Your task to perform on an android device: Search for "usb-b" on ebay, select the first entry, and add it to the cart. Image 0: 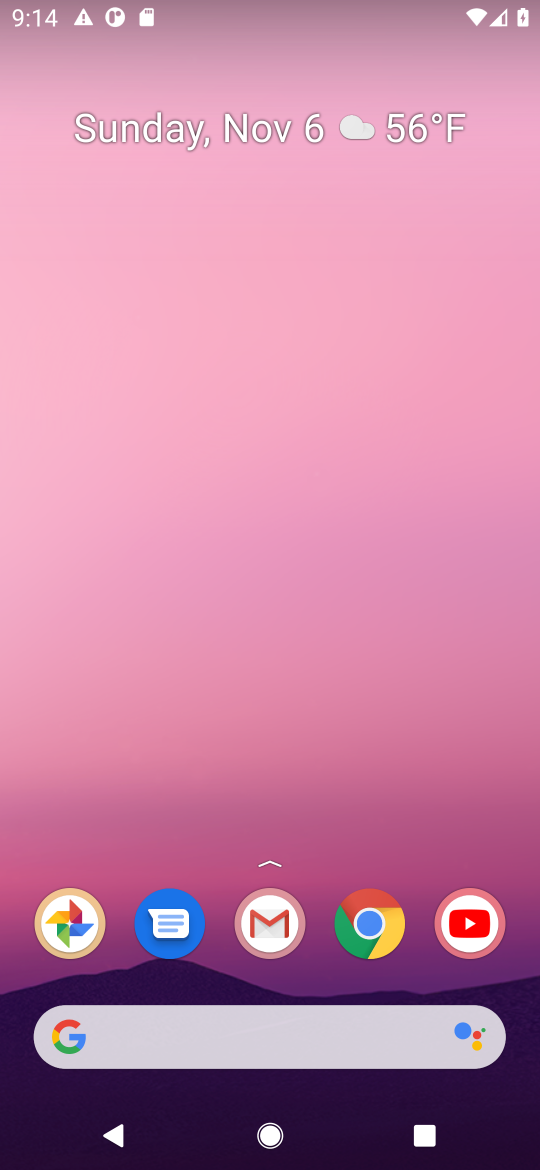
Step 0: click (366, 953)
Your task to perform on an android device: Search for "usb-b" on ebay, select the first entry, and add it to the cart. Image 1: 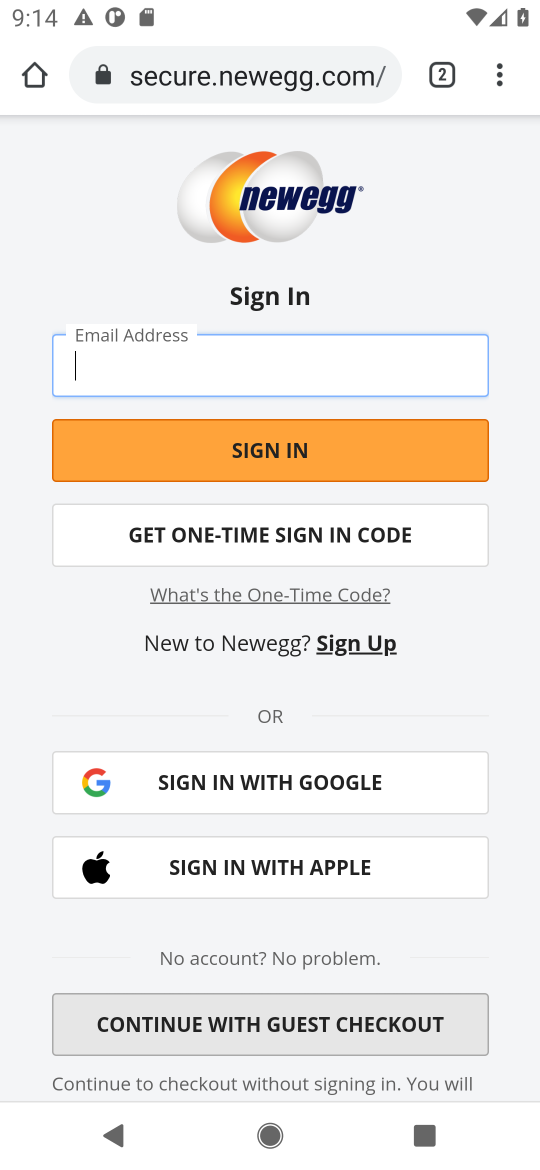
Step 1: click (203, 86)
Your task to perform on an android device: Search for "usb-b" on ebay, select the first entry, and add it to the cart. Image 2: 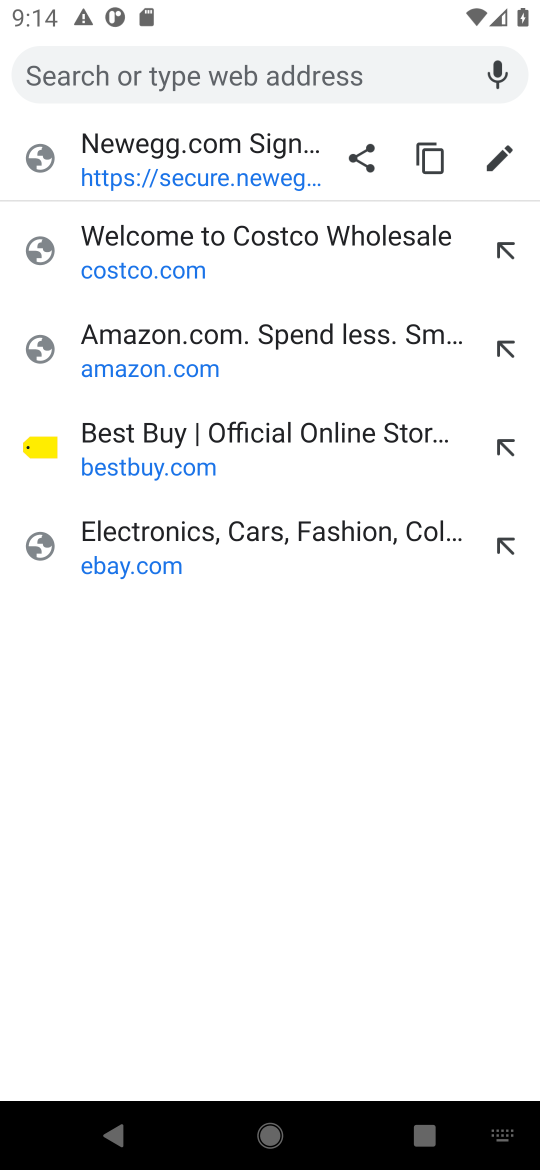
Step 2: click (131, 568)
Your task to perform on an android device: Search for "usb-b" on ebay, select the first entry, and add it to the cart. Image 3: 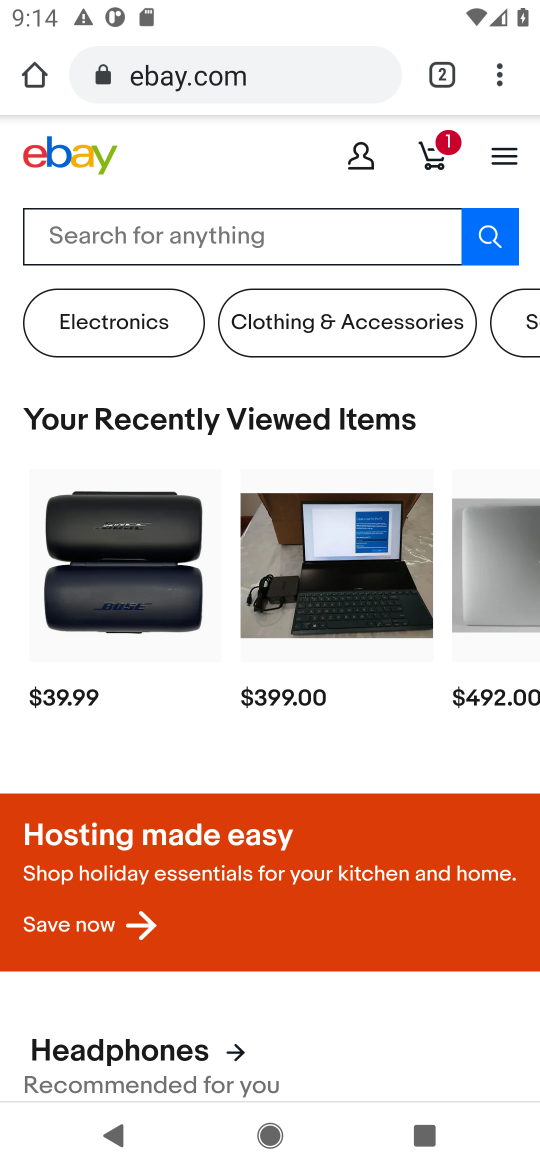
Step 3: click (167, 227)
Your task to perform on an android device: Search for "usb-b" on ebay, select the first entry, and add it to the cart. Image 4: 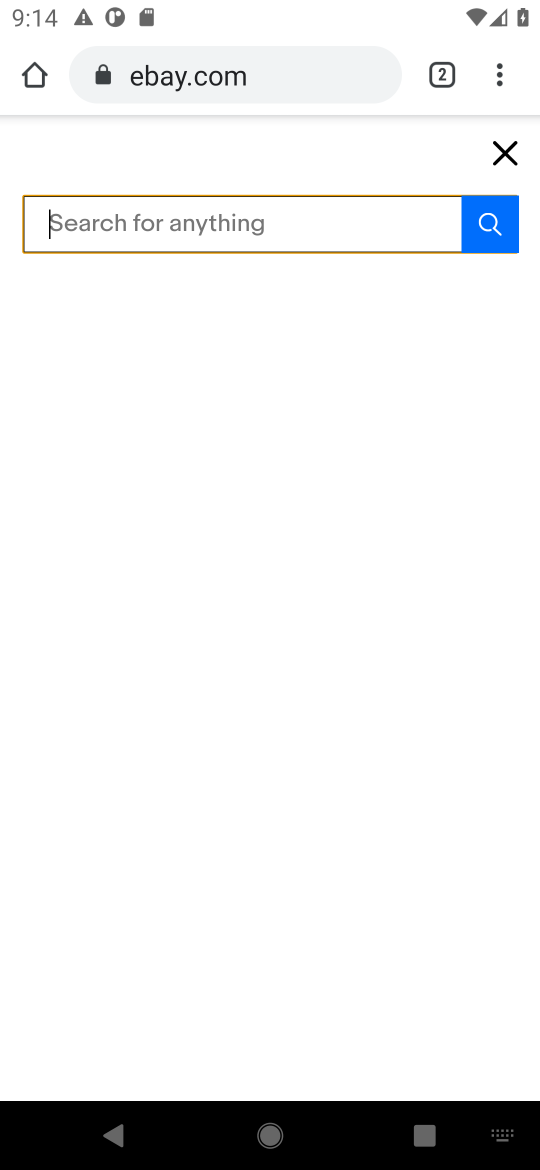
Step 4: type "usb-b"
Your task to perform on an android device: Search for "usb-b" on ebay, select the first entry, and add it to the cart. Image 5: 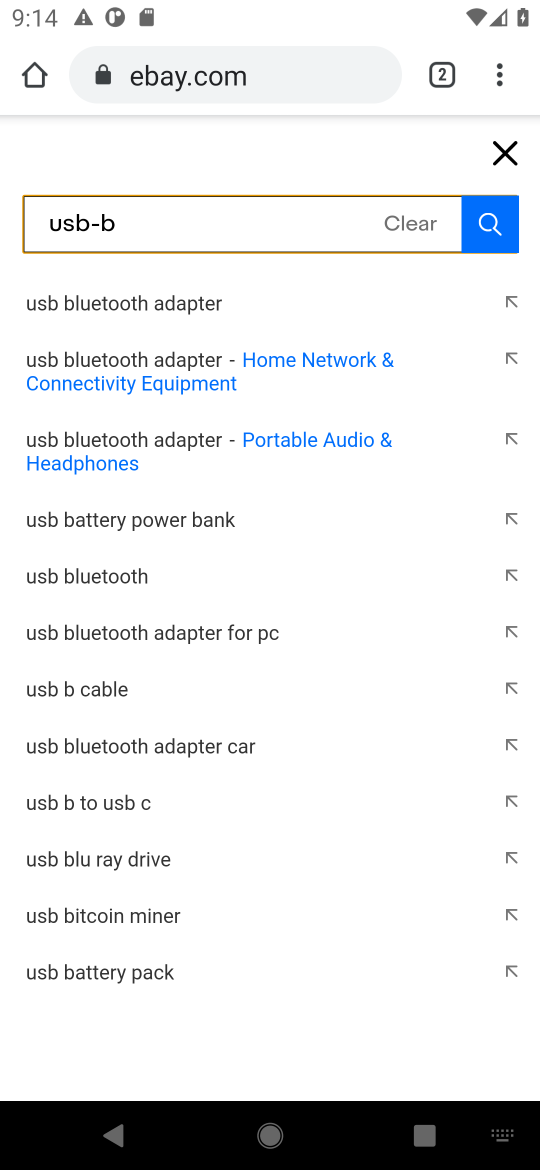
Step 5: click (490, 227)
Your task to perform on an android device: Search for "usb-b" on ebay, select the first entry, and add it to the cart. Image 6: 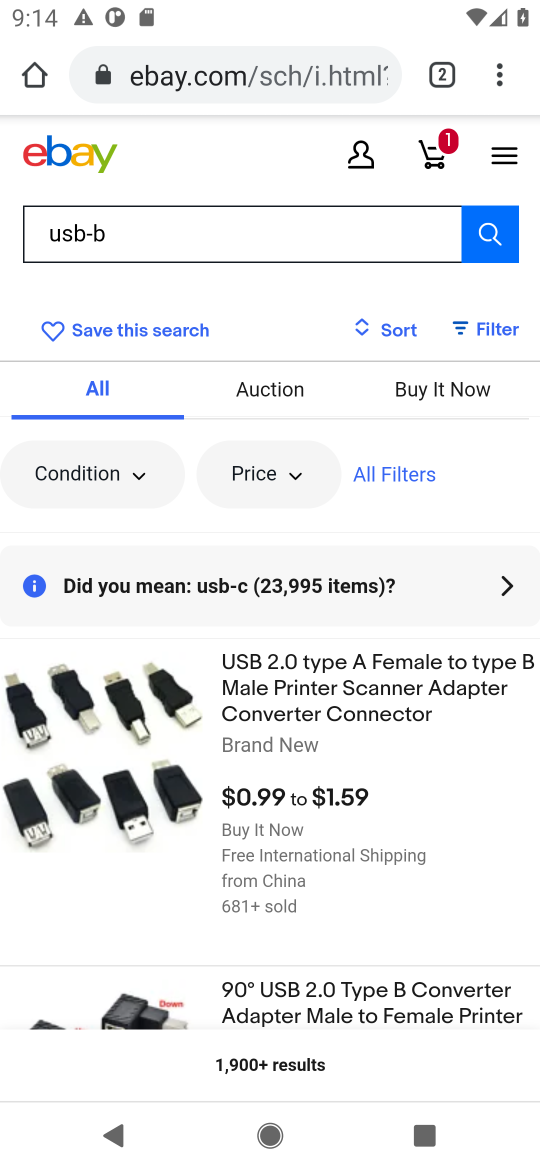
Step 6: drag from (201, 778) to (205, 542)
Your task to perform on an android device: Search for "usb-b" on ebay, select the first entry, and add it to the cart. Image 7: 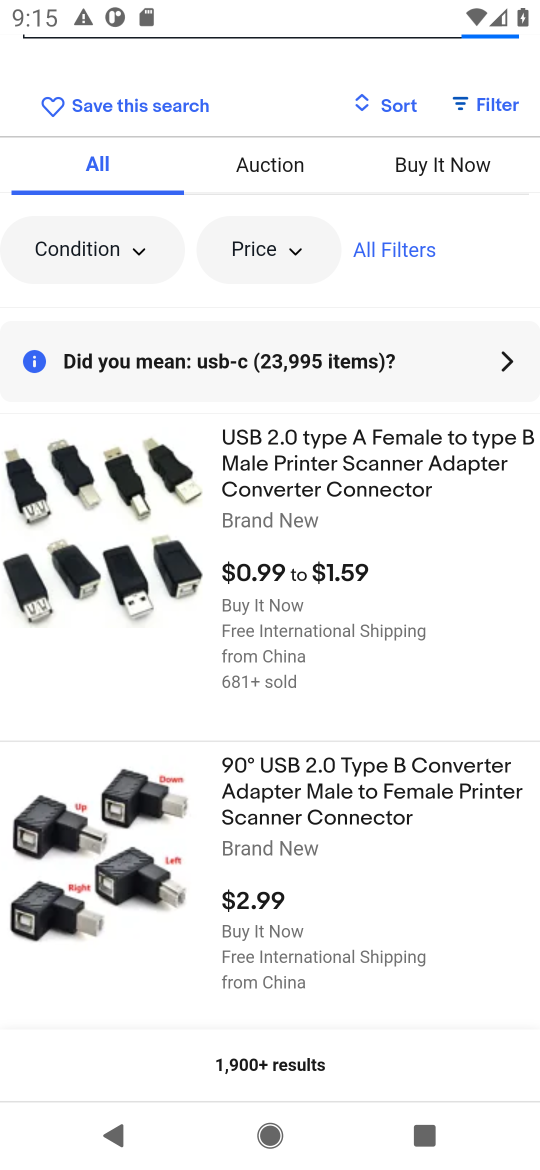
Step 7: click (199, 550)
Your task to perform on an android device: Search for "usb-b" on ebay, select the first entry, and add it to the cart. Image 8: 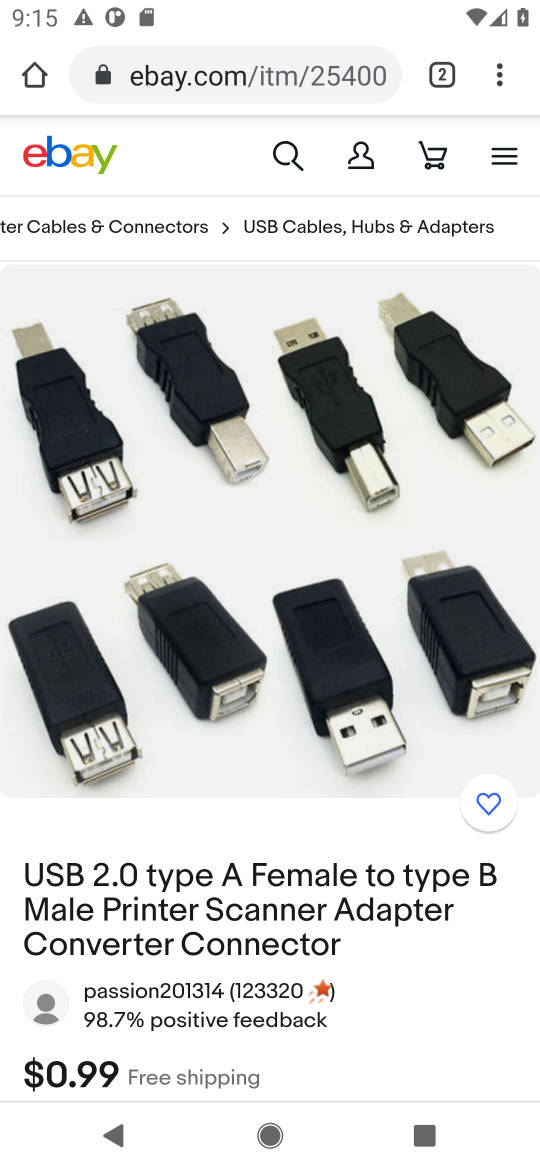
Step 8: drag from (259, 820) to (210, 280)
Your task to perform on an android device: Search for "usb-b" on ebay, select the first entry, and add it to the cart. Image 9: 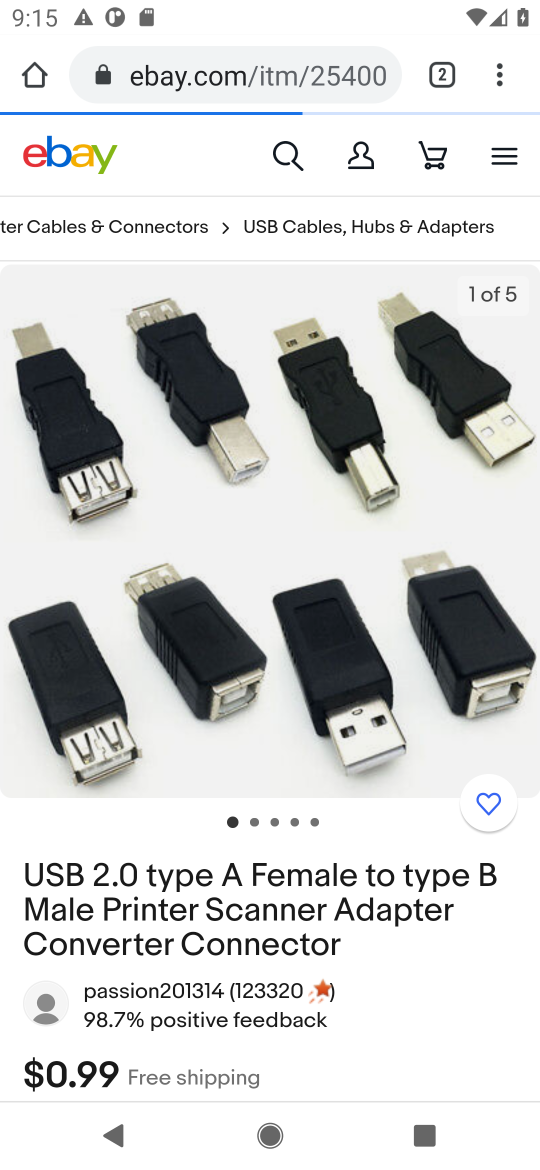
Step 9: drag from (456, 892) to (383, 421)
Your task to perform on an android device: Search for "usb-b" on ebay, select the first entry, and add it to the cart. Image 10: 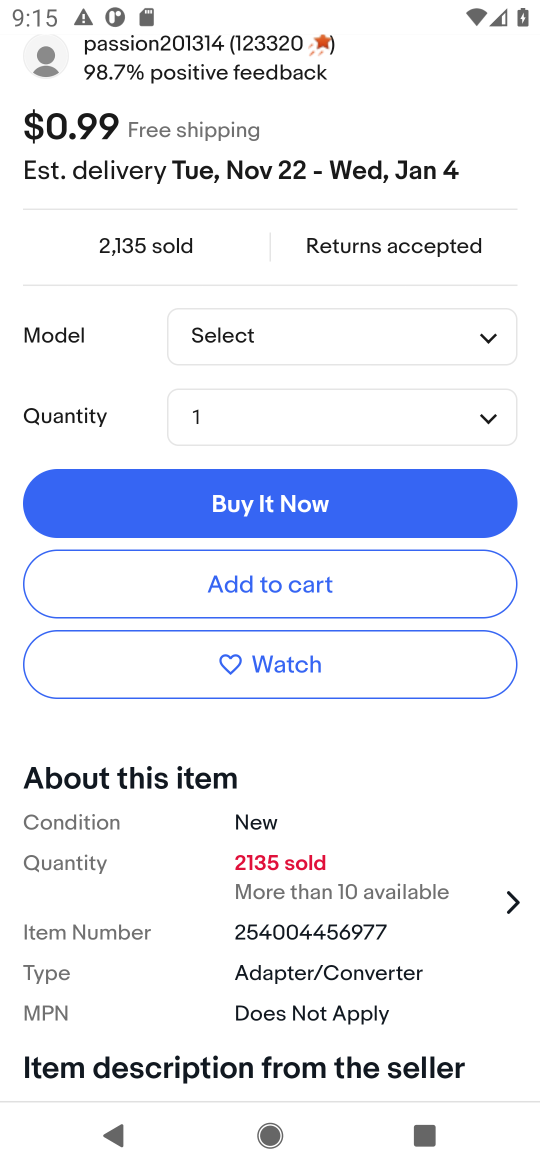
Step 10: click (266, 592)
Your task to perform on an android device: Search for "usb-b" on ebay, select the first entry, and add it to the cart. Image 11: 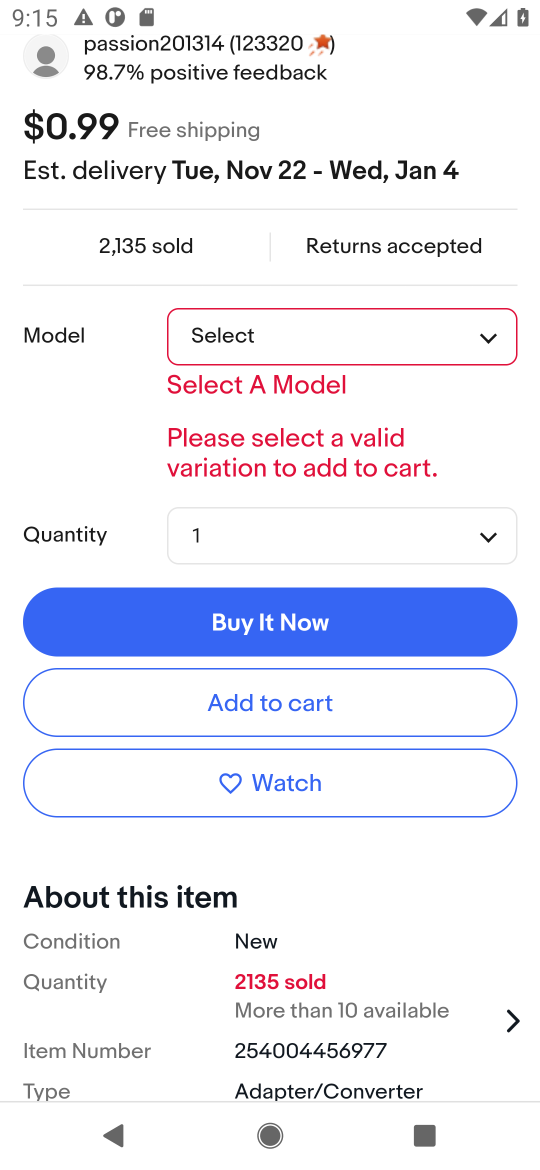
Step 11: click (491, 339)
Your task to perform on an android device: Search for "usb-b" on ebay, select the first entry, and add it to the cart. Image 12: 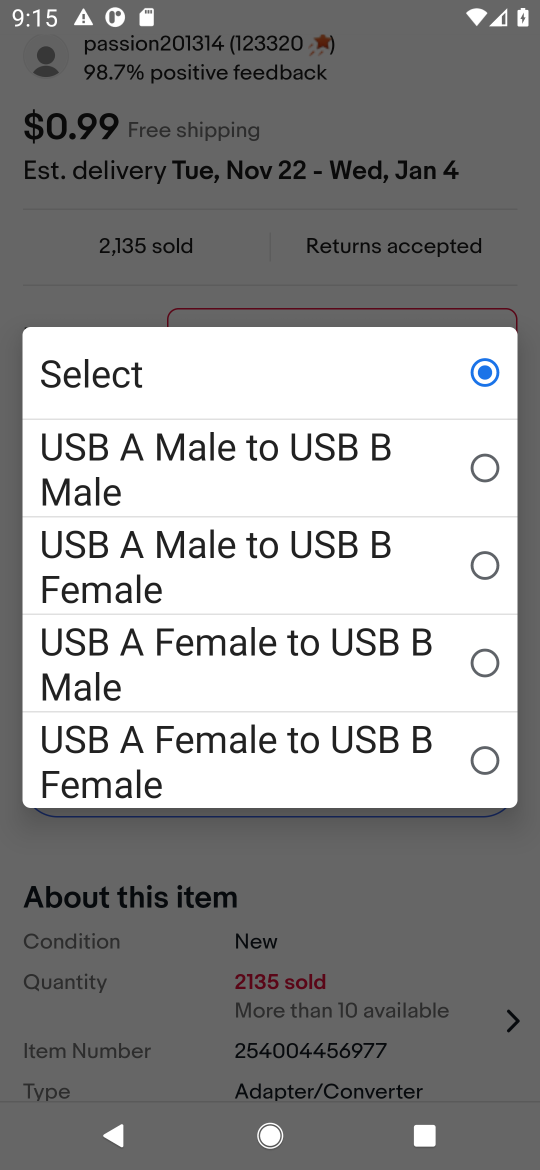
Step 12: click (485, 463)
Your task to perform on an android device: Search for "usb-b" on ebay, select the first entry, and add it to the cart. Image 13: 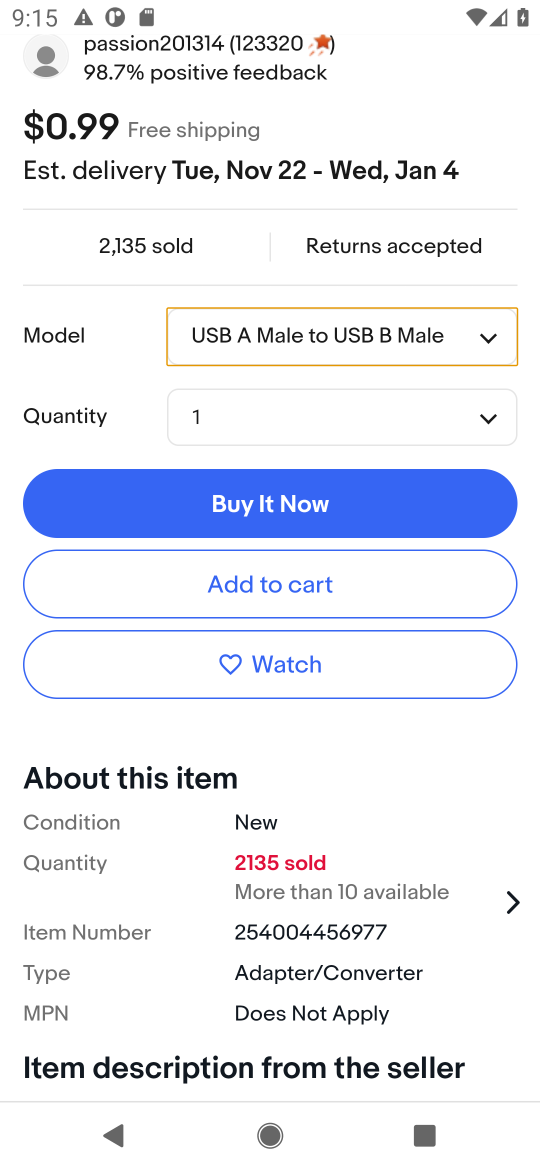
Step 13: click (343, 576)
Your task to perform on an android device: Search for "usb-b" on ebay, select the first entry, and add it to the cart. Image 14: 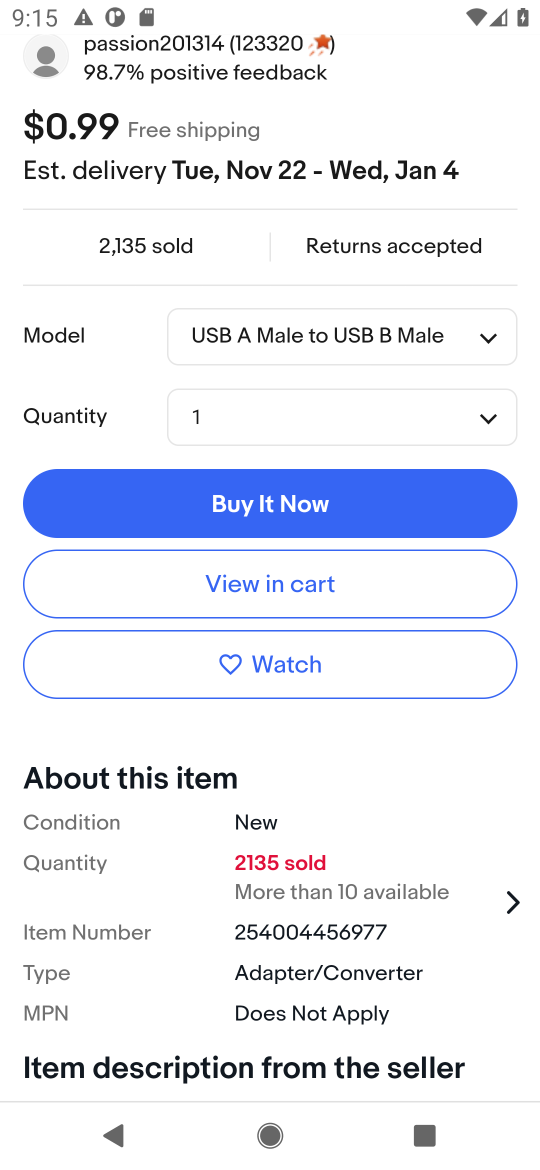
Step 14: task complete